Your task to perform on an android device: turn off picture-in-picture Image 0: 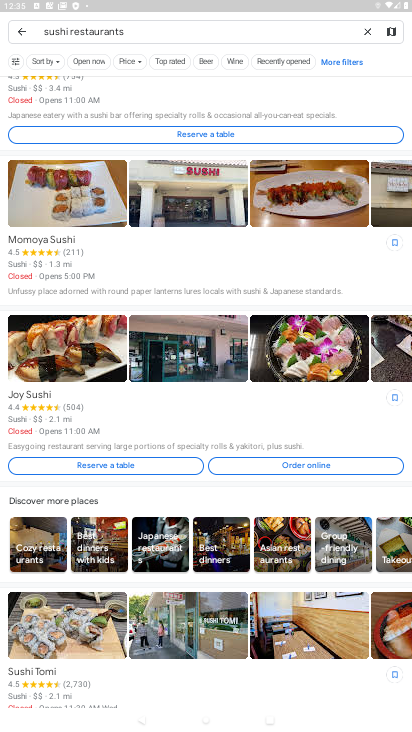
Step 0: press home button
Your task to perform on an android device: turn off picture-in-picture Image 1: 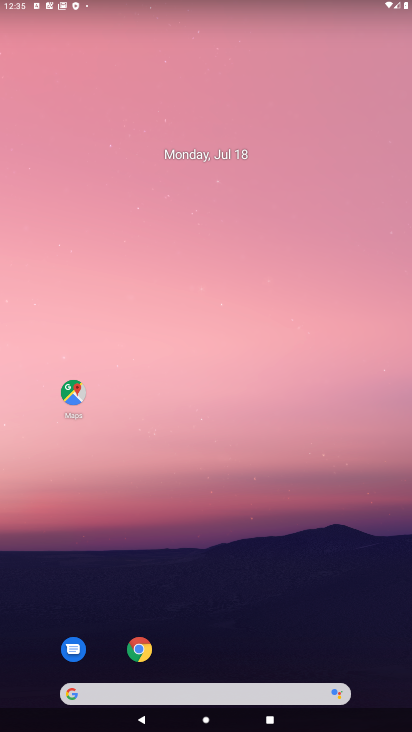
Step 1: drag from (381, 669) to (303, 153)
Your task to perform on an android device: turn off picture-in-picture Image 2: 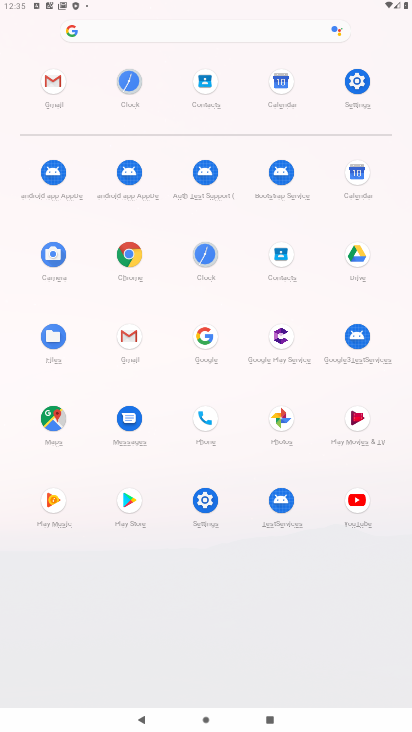
Step 2: click (206, 499)
Your task to perform on an android device: turn off picture-in-picture Image 3: 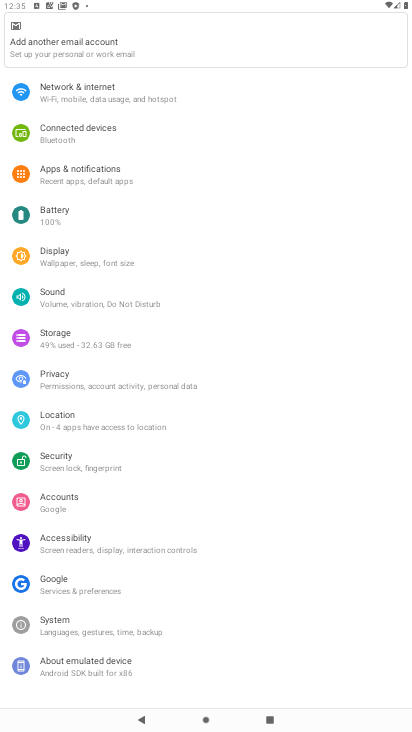
Step 3: click (70, 167)
Your task to perform on an android device: turn off picture-in-picture Image 4: 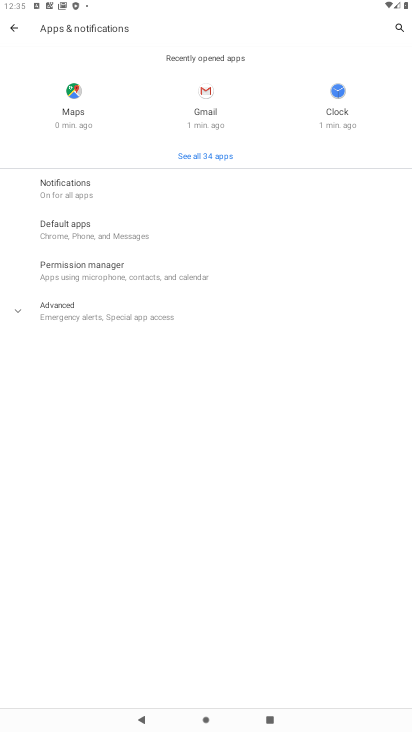
Step 4: click (13, 310)
Your task to perform on an android device: turn off picture-in-picture Image 5: 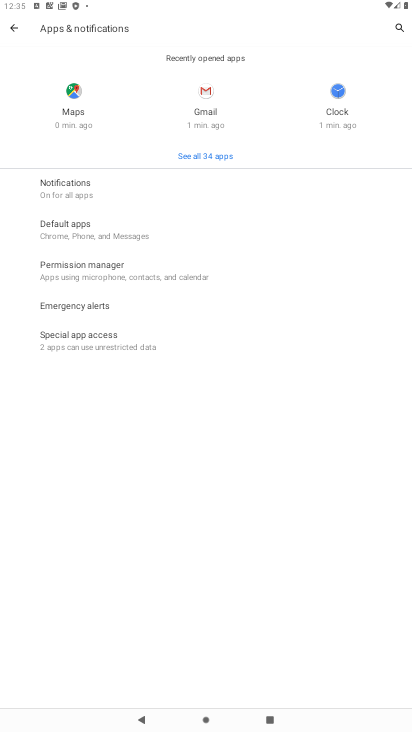
Step 5: click (66, 338)
Your task to perform on an android device: turn off picture-in-picture Image 6: 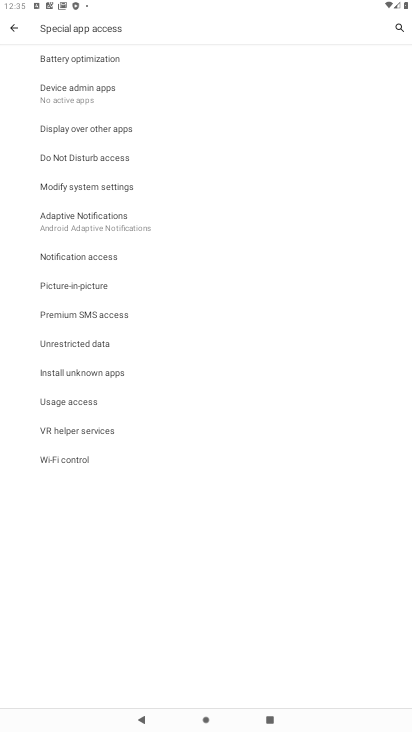
Step 6: click (72, 280)
Your task to perform on an android device: turn off picture-in-picture Image 7: 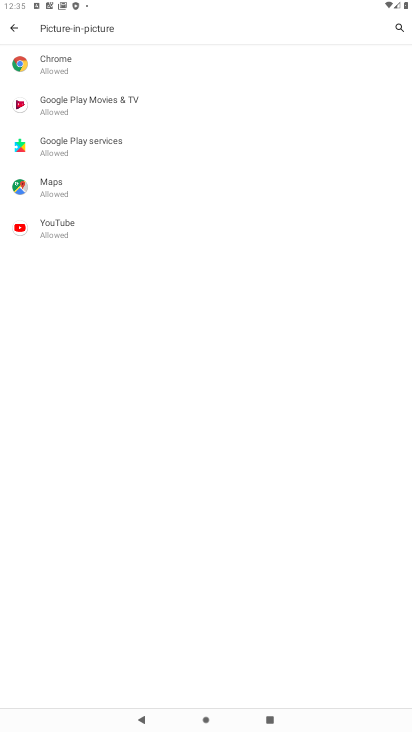
Step 7: click (57, 230)
Your task to perform on an android device: turn off picture-in-picture Image 8: 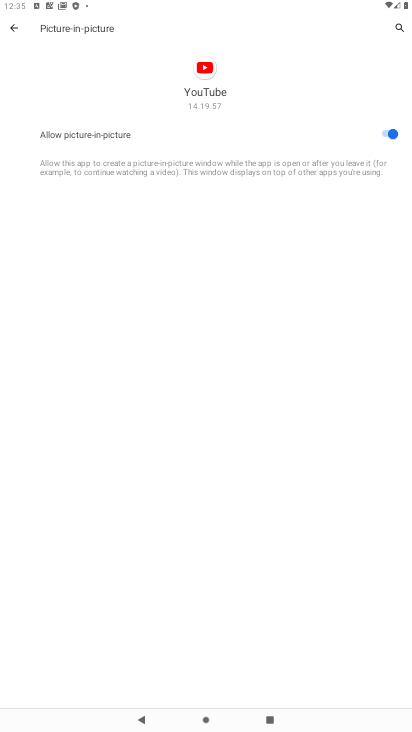
Step 8: click (381, 136)
Your task to perform on an android device: turn off picture-in-picture Image 9: 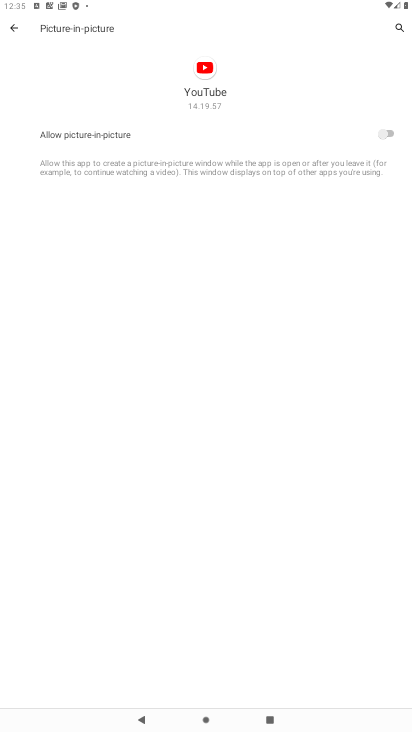
Step 9: task complete